Your task to perform on an android device: Go to sound settings Image 0: 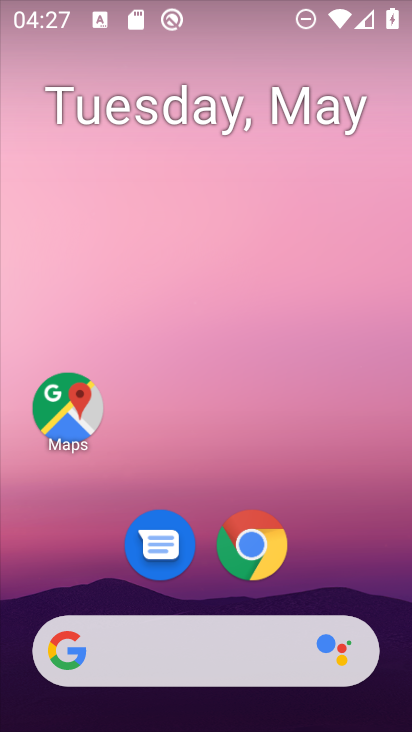
Step 0: drag from (377, 610) to (359, 87)
Your task to perform on an android device: Go to sound settings Image 1: 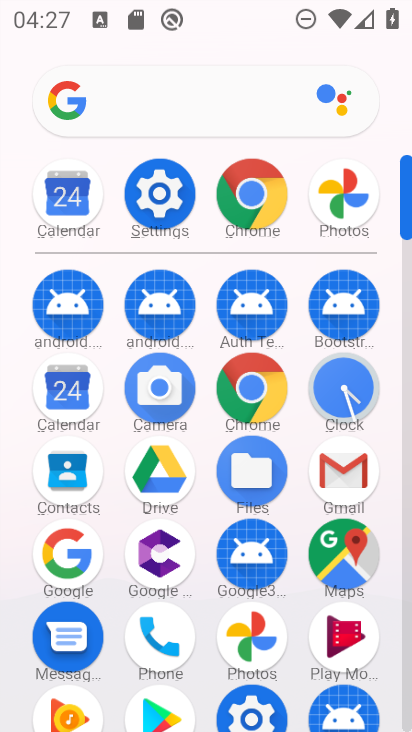
Step 1: click (410, 675)
Your task to perform on an android device: Go to sound settings Image 2: 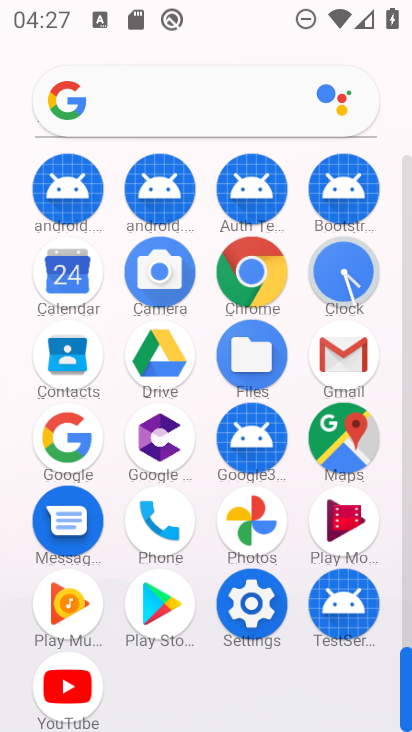
Step 2: click (249, 598)
Your task to perform on an android device: Go to sound settings Image 3: 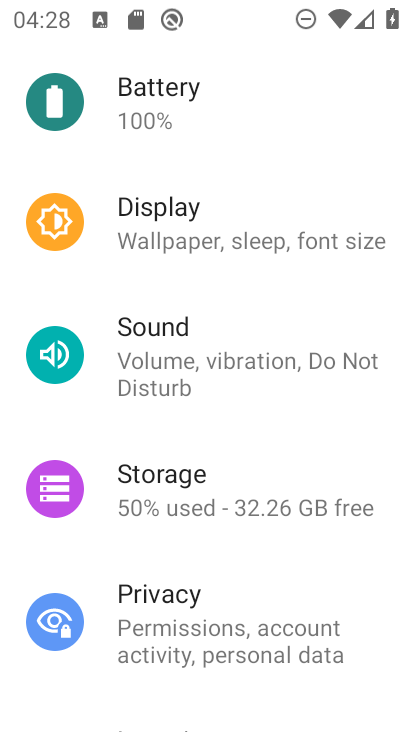
Step 3: click (160, 353)
Your task to perform on an android device: Go to sound settings Image 4: 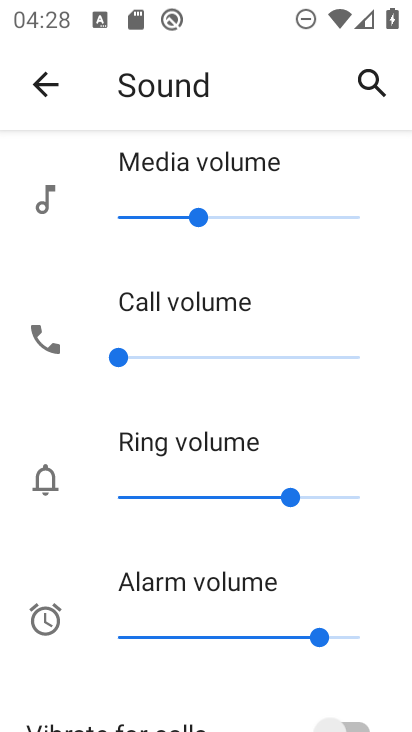
Step 4: drag from (189, 578) to (227, 175)
Your task to perform on an android device: Go to sound settings Image 5: 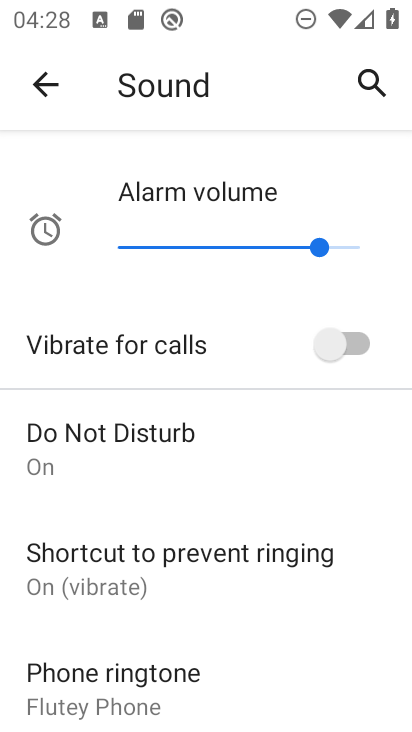
Step 5: drag from (240, 572) to (237, 170)
Your task to perform on an android device: Go to sound settings Image 6: 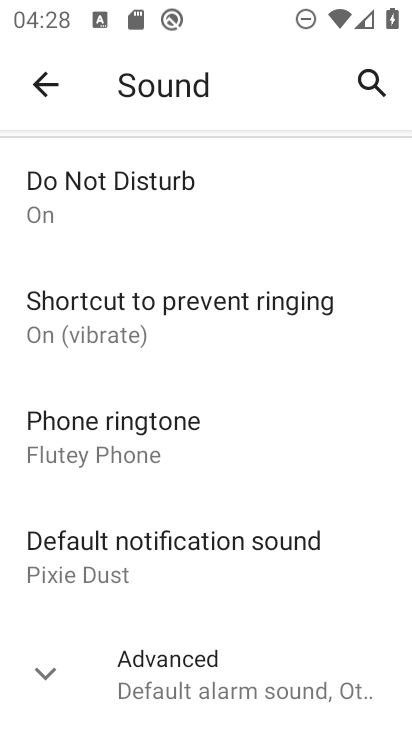
Step 6: click (40, 671)
Your task to perform on an android device: Go to sound settings Image 7: 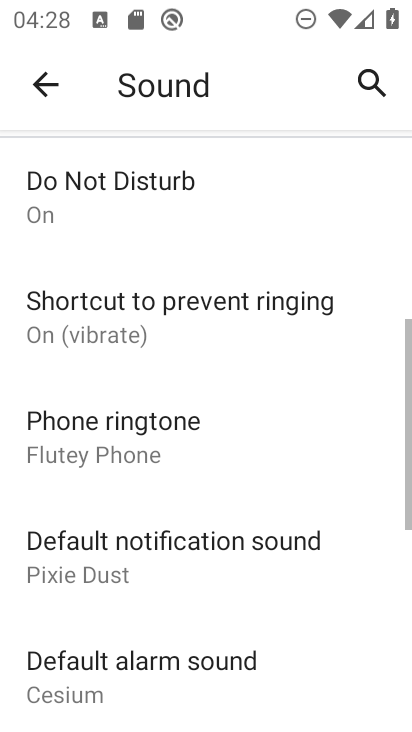
Step 7: task complete